Your task to perform on an android device: turn on javascript in the chrome app Image 0: 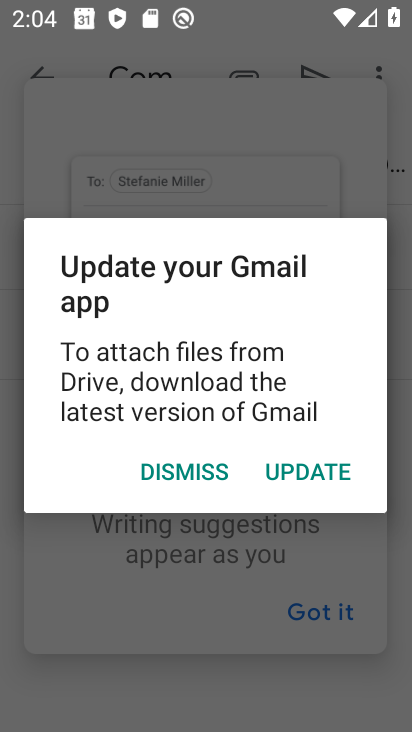
Step 0: press home button
Your task to perform on an android device: turn on javascript in the chrome app Image 1: 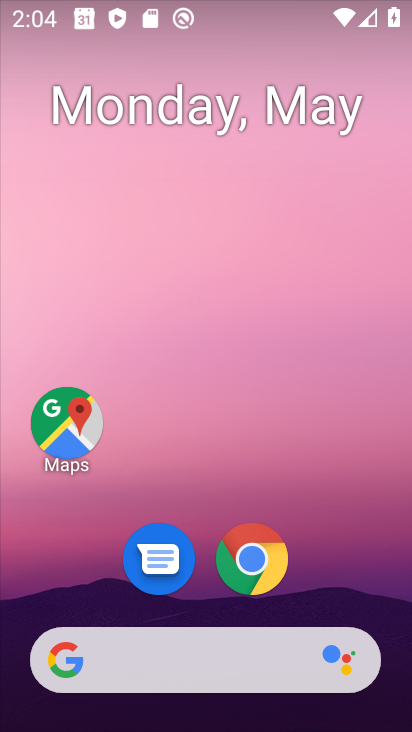
Step 1: click (245, 566)
Your task to perform on an android device: turn on javascript in the chrome app Image 2: 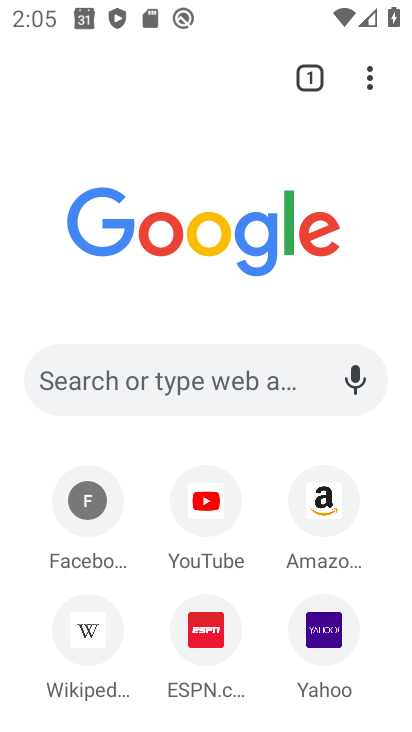
Step 2: drag from (372, 80) to (89, 641)
Your task to perform on an android device: turn on javascript in the chrome app Image 3: 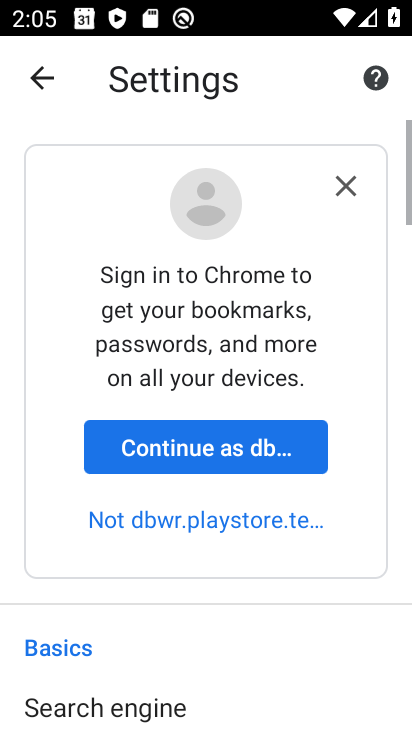
Step 3: drag from (191, 650) to (219, 188)
Your task to perform on an android device: turn on javascript in the chrome app Image 4: 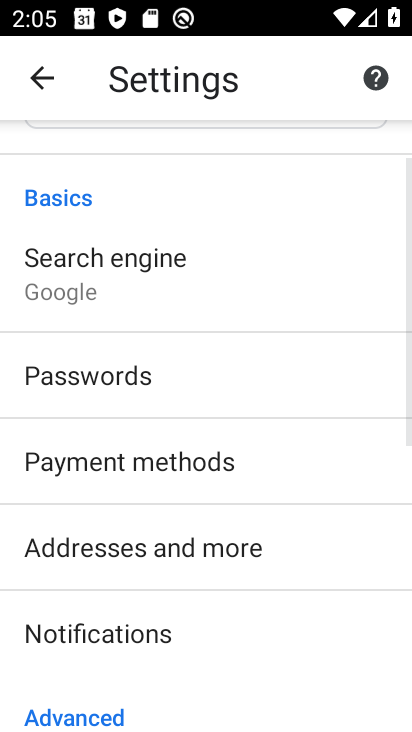
Step 4: drag from (164, 581) to (183, 236)
Your task to perform on an android device: turn on javascript in the chrome app Image 5: 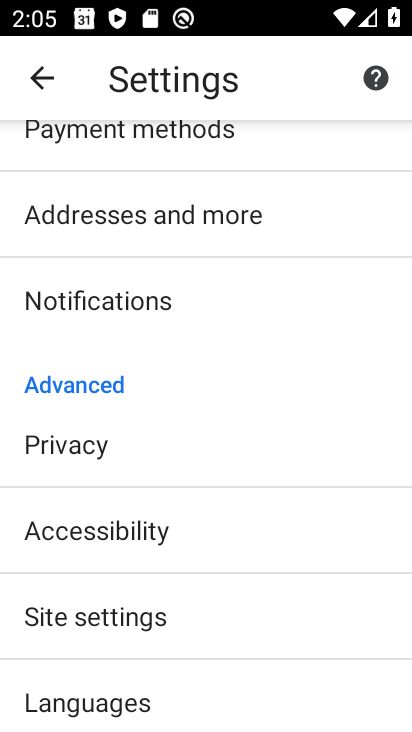
Step 5: click (145, 621)
Your task to perform on an android device: turn on javascript in the chrome app Image 6: 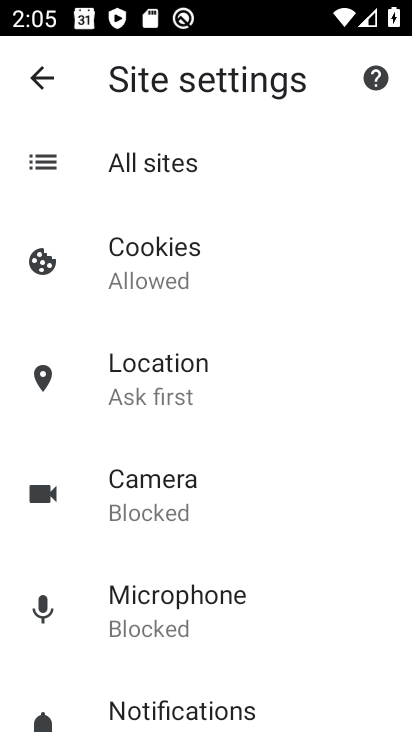
Step 6: drag from (248, 616) to (253, 254)
Your task to perform on an android device: turn on javascript in the chrome app Image 7: 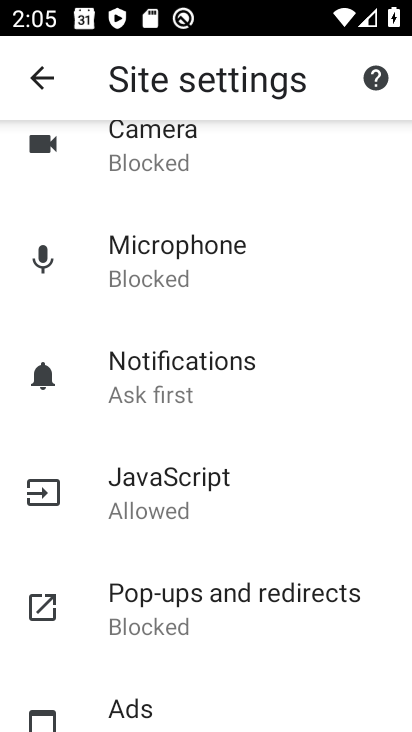
Step 7: click (155, 492)
Your task to perform on an android device: turn on javascript in the chrome app Image 8: 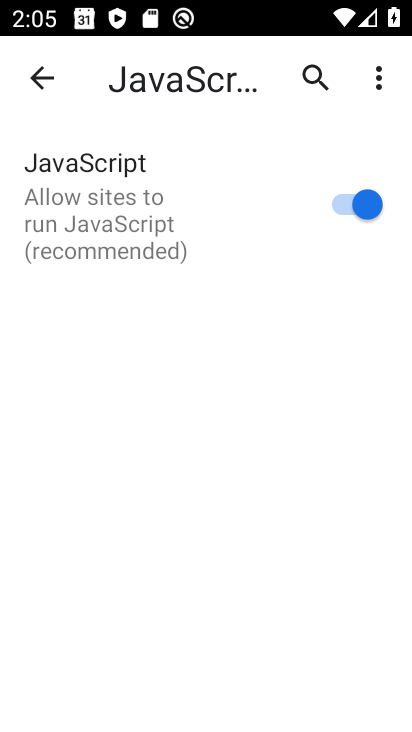
Step 8: task complete